Your task to perform on an android device: Open privacy settings Image 0: 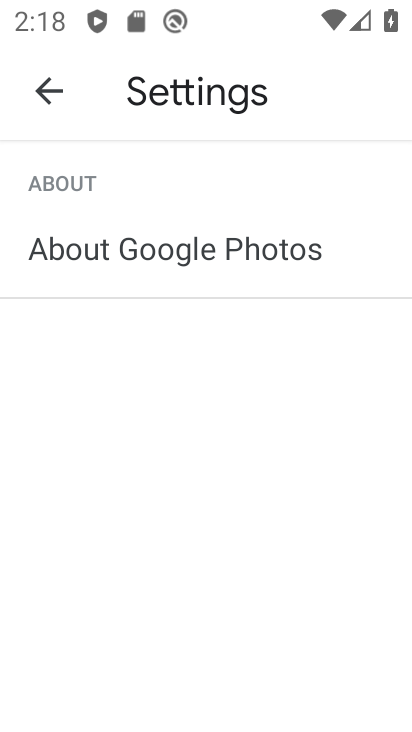
Step 0: press back button
Your task to perform on an android device: Open privacy settings Image 1: 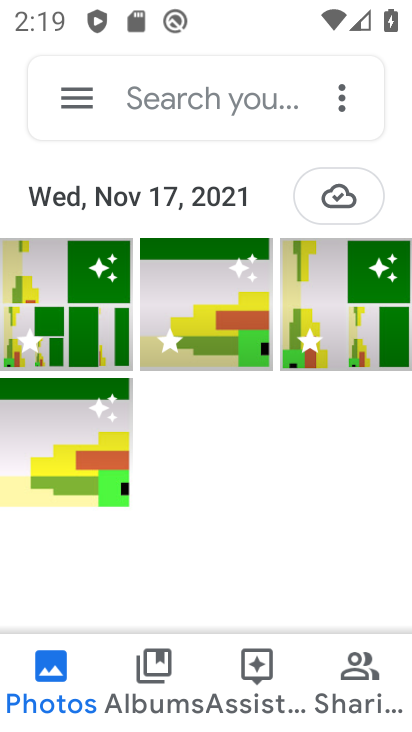
Step 1: press home button
Your task to perform on an android device: Open privacy settings Image 2: 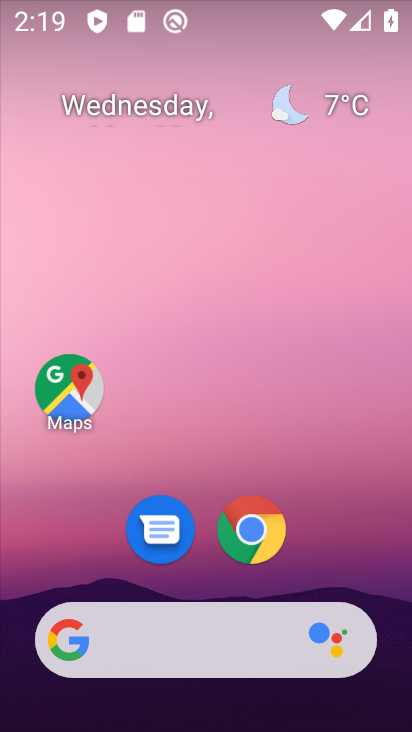
Step 2: drag from (16, 623) to (278, 232)
Your task to perform on an android device: Open privacy settings Image 3: 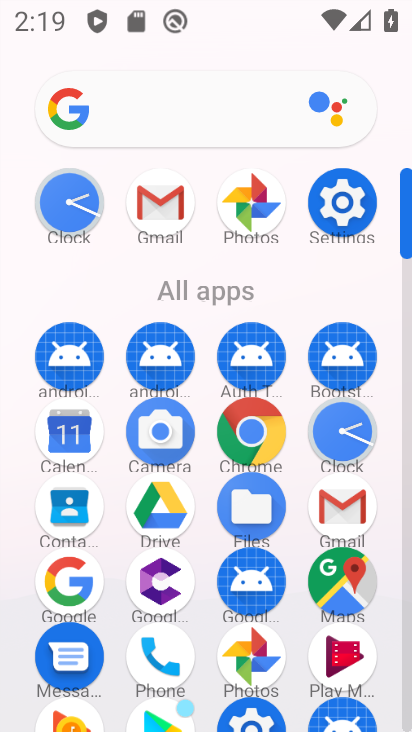
Step 3: click (337, 192)
Your task to perform on an android device: Open privacy settings Image 4: 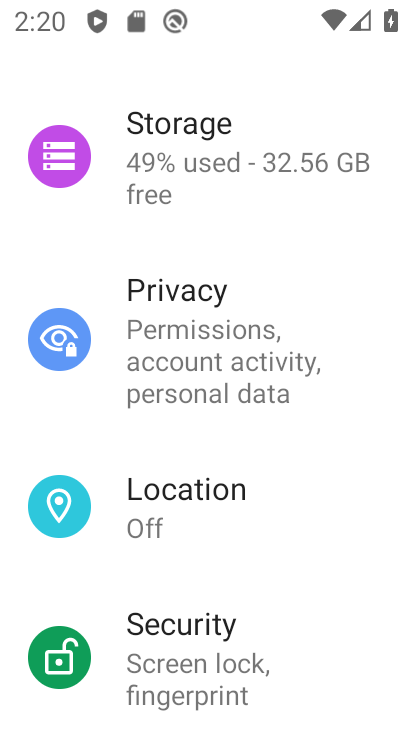
Step 4: drag from (92, 651) to (264, 159)
Your task to perform on an android device: Open privacy settings Image 5: 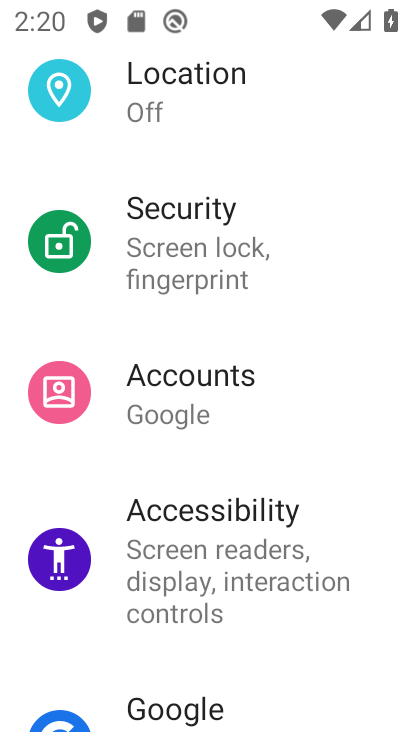
Step 5: drag from (117, 662) to (276, 229)
Your task to perform on an android device: Open privacy settings Image 6: 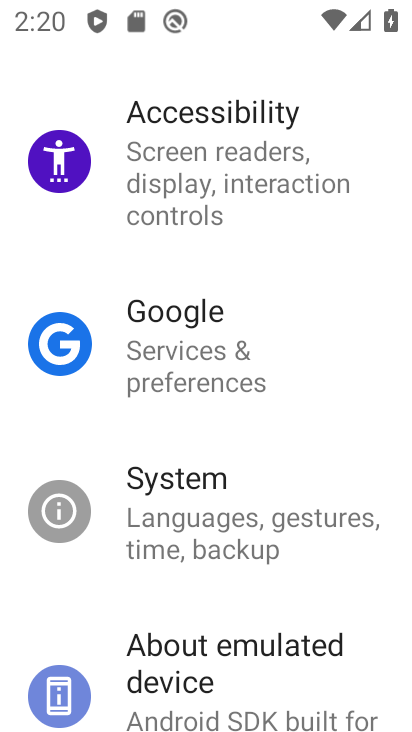
Step 6: drag from (220, 214) to (208, 693)
Your task to perform on an android device: Open privacy settings Image 7: 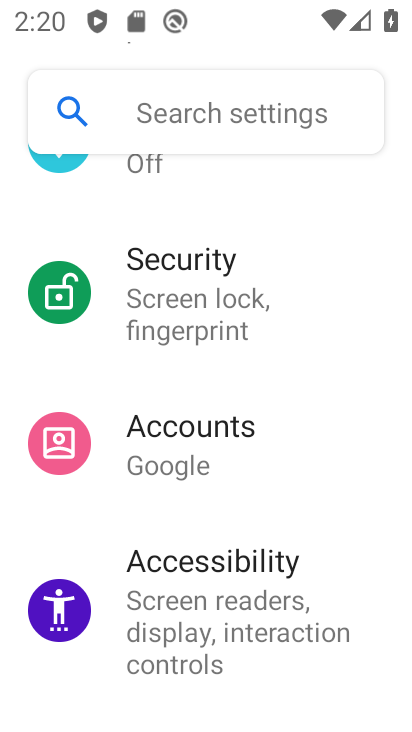
Step 7: drag from (196, 221) to (188, 591)
Your task to perform on an android device: Open privacy settings Image 8: 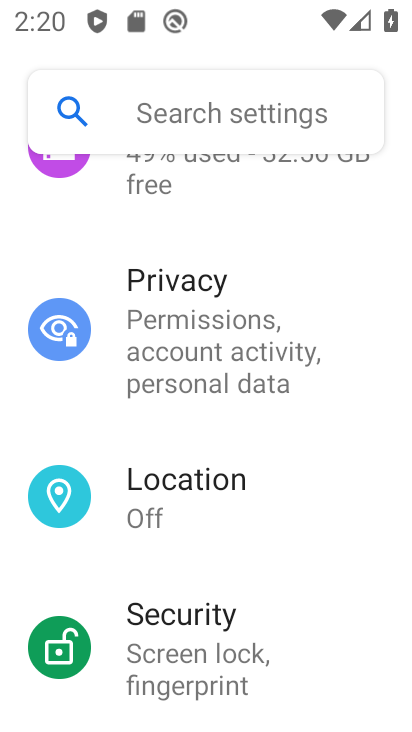
Step 8: click (173, 352)
Your task to perform on an android device: Open privacy settings Image 9: 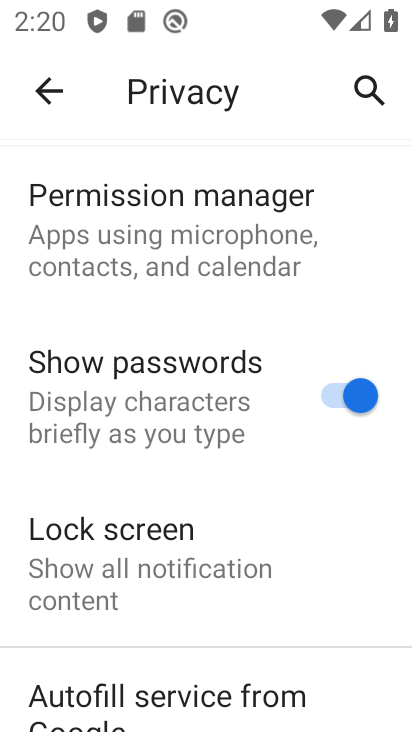
Step 9: task complete